Your task to perform on an android device: toggle javascript in the chrome app Image 0: 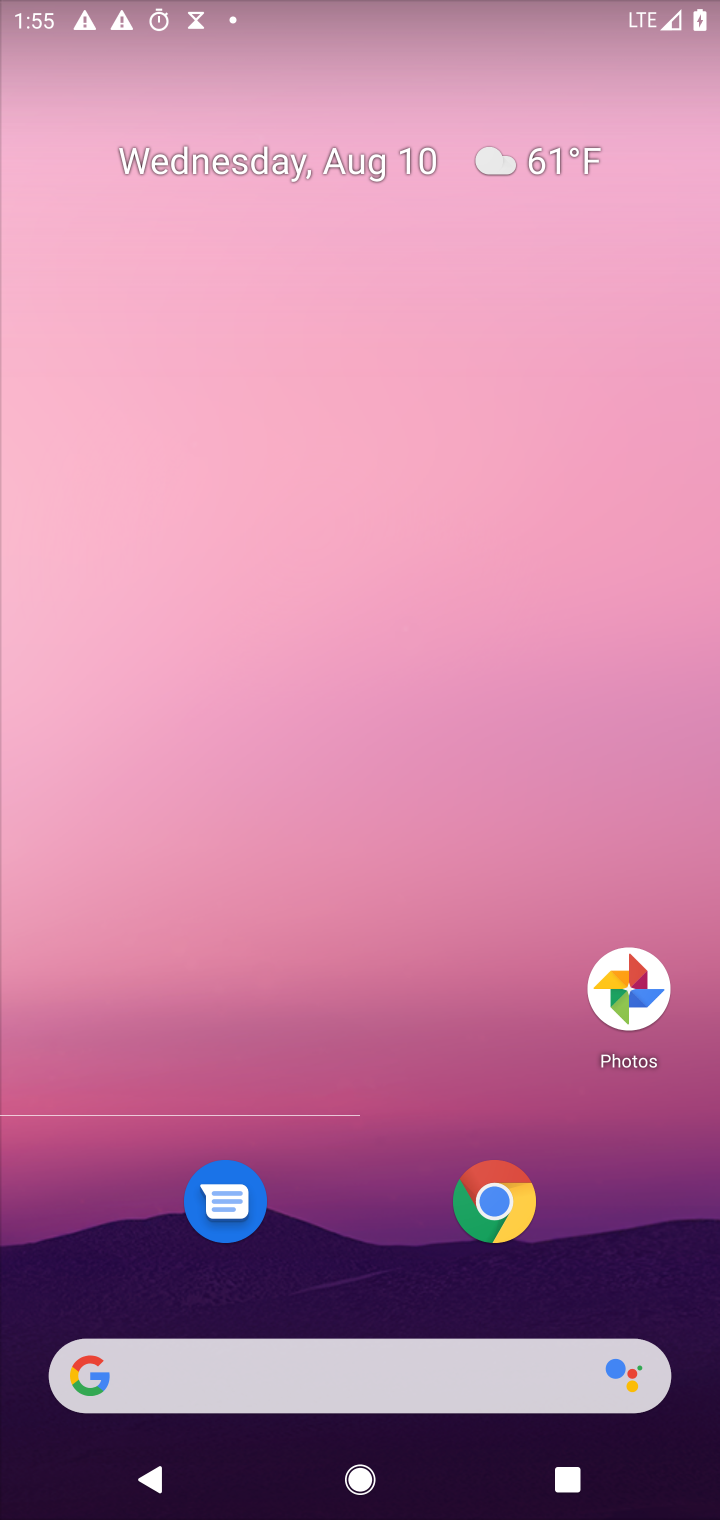
Step 0: press home button
Your task to perform on an android device: toggle javascript in the chrome app Image 1: 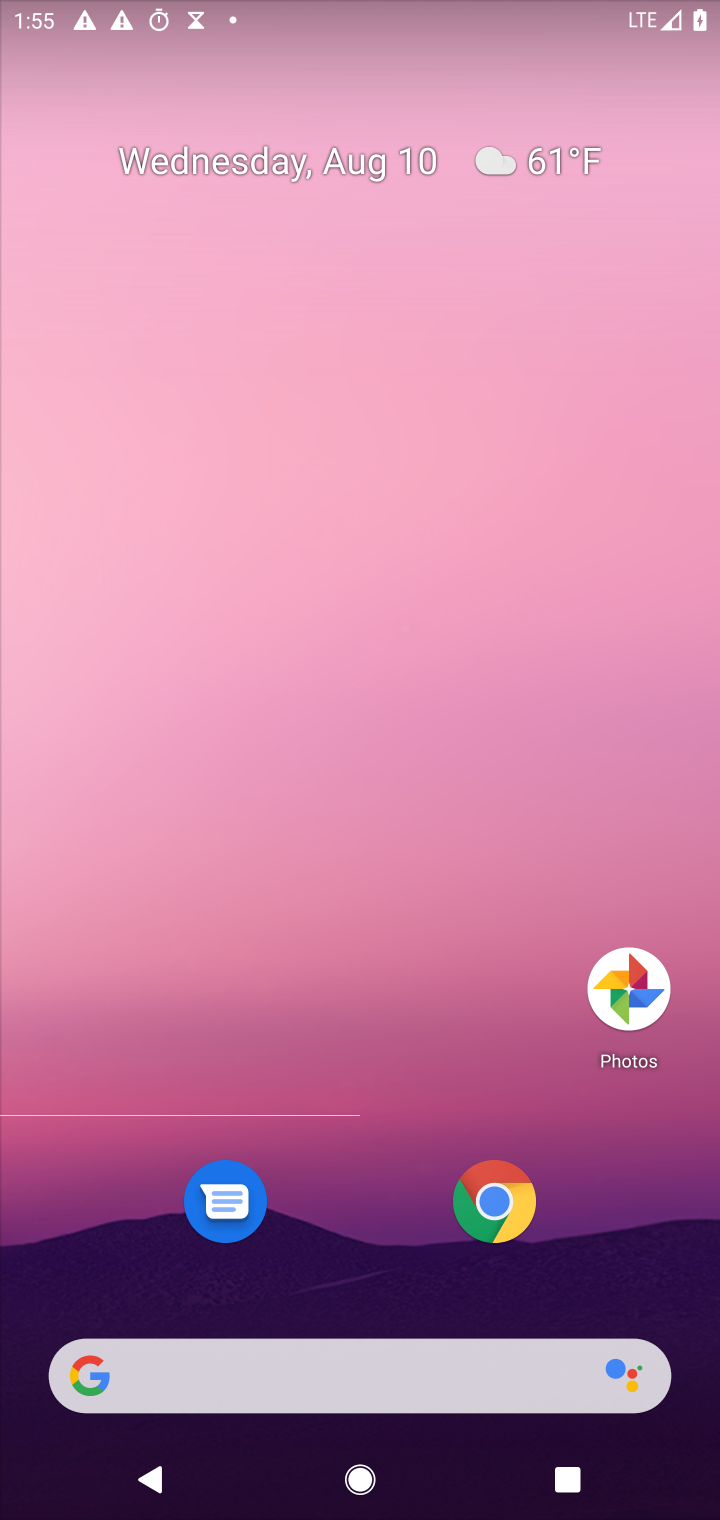
Step 1: click (486, 1200)
Your task to perform on an android device: toggle javascript in the chrome app Image 2: 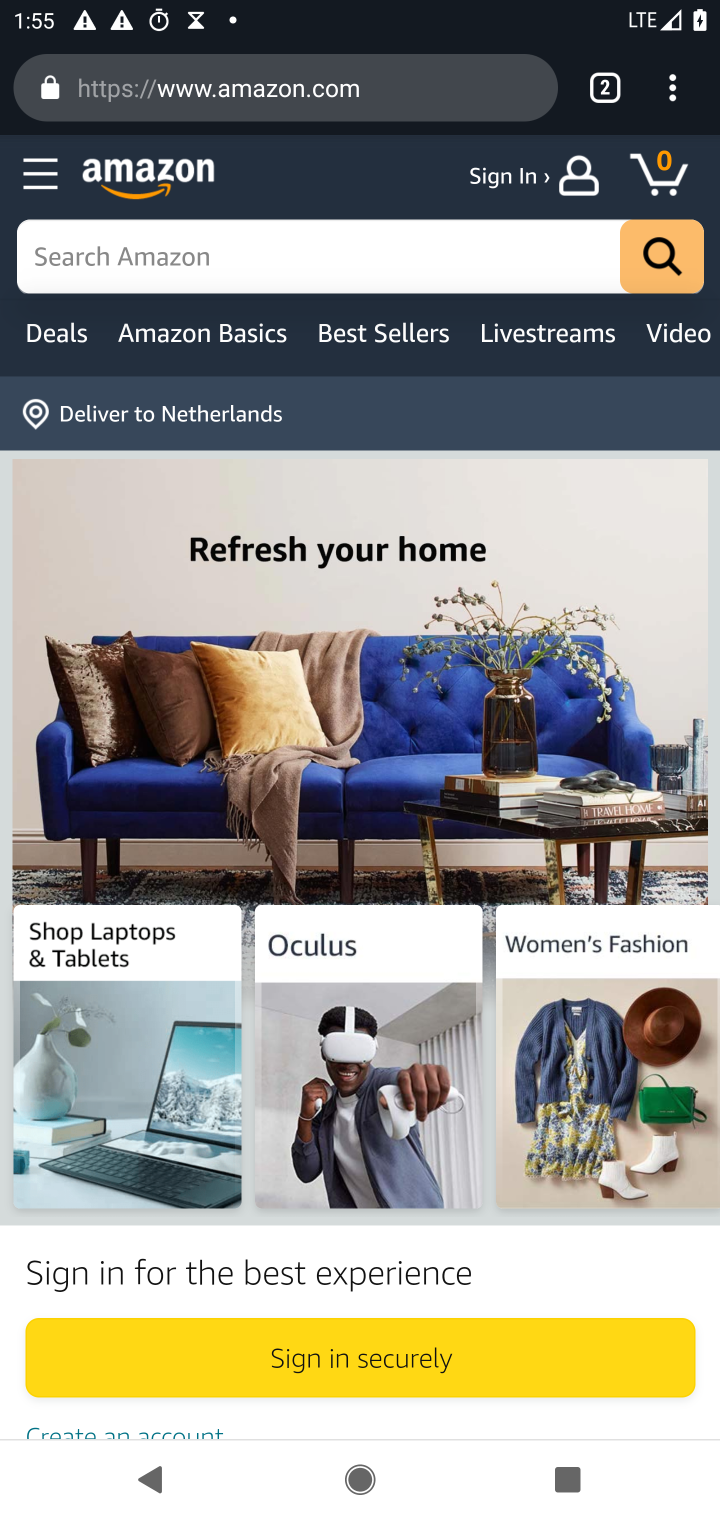
Step 2: drag from (675, 88) to (318, 1084)
Your task to perform on an android device: toggle javascript in the chrome app Image 3: 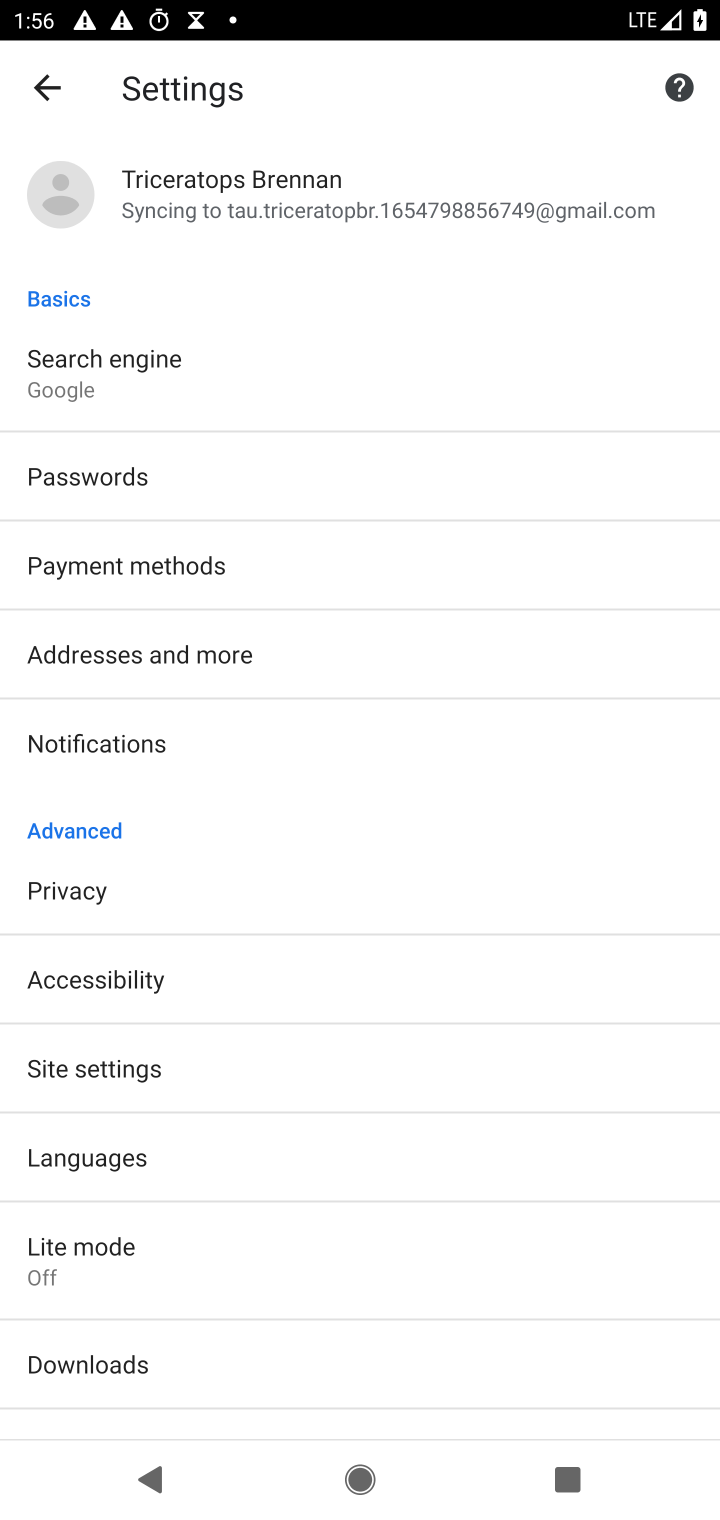
Step 3: click (61, 1099)
Your task to perform on an android device: toggle javascript in the chrome app Image 4: 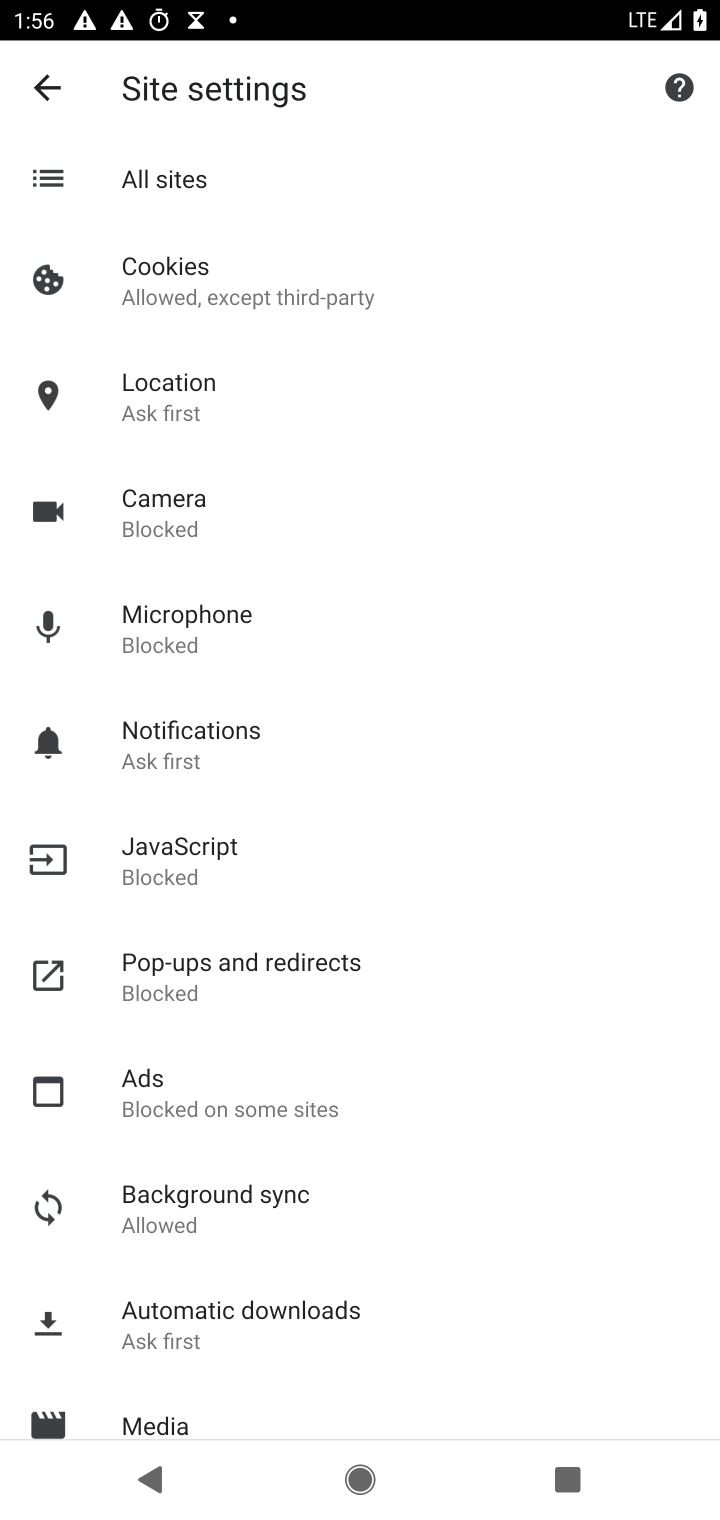
Step 4: click (178, 851)
Your task to perform on an android device: toggle javascript in the chrome app Image 5: 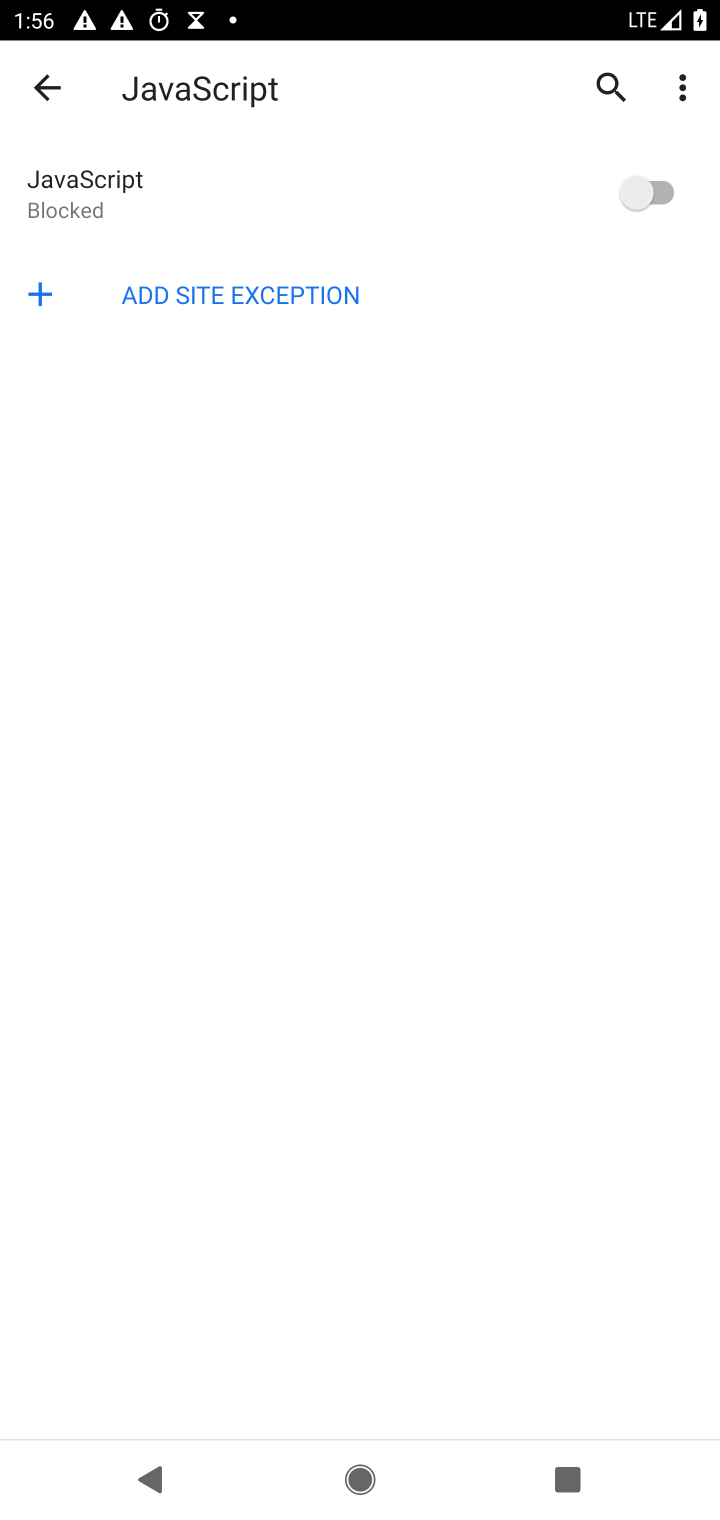
Step 5: click (653, 197)
Your task to perform on an android device: toggle javascript in the chrome app Image 6: 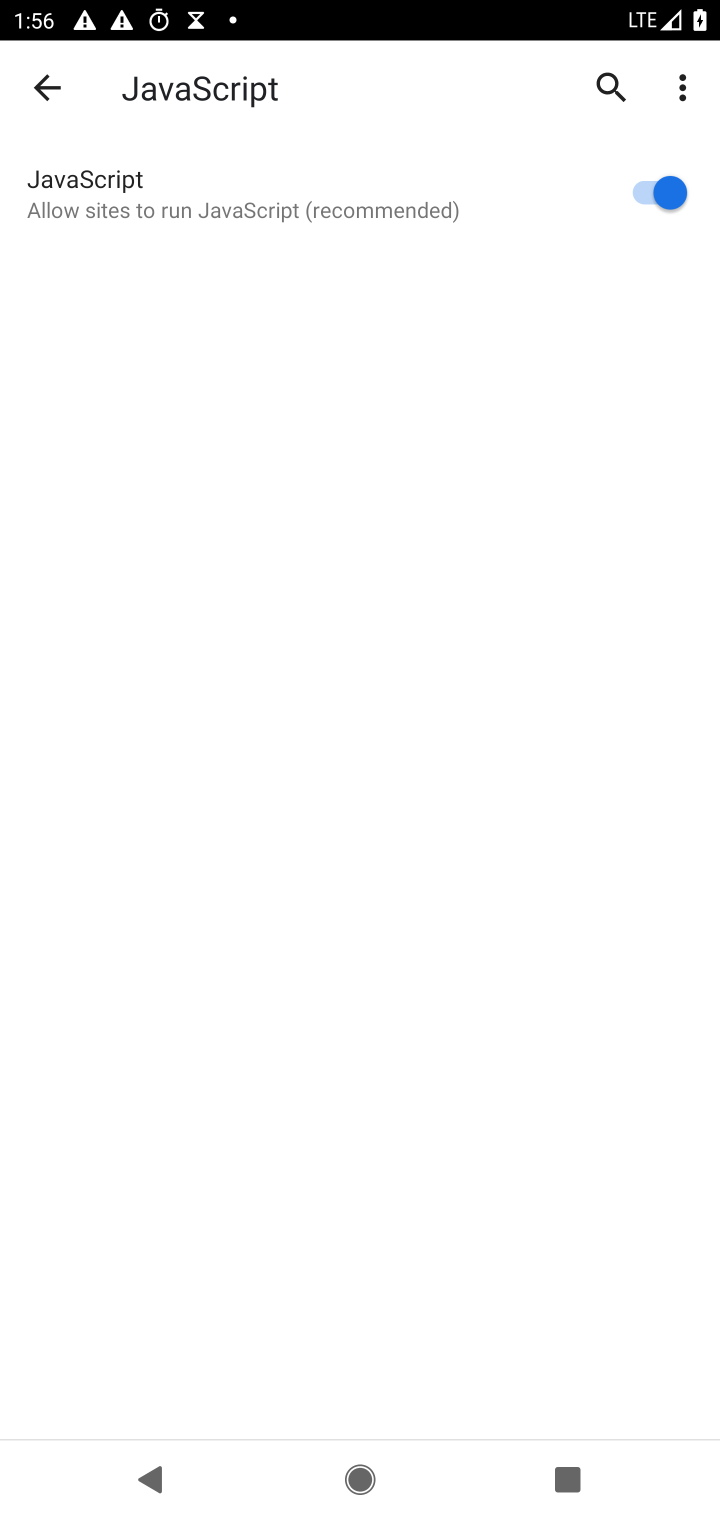
Step 6: task complete